Your task to perform on an android device: make emails show in primary in the gmail app Image 0: 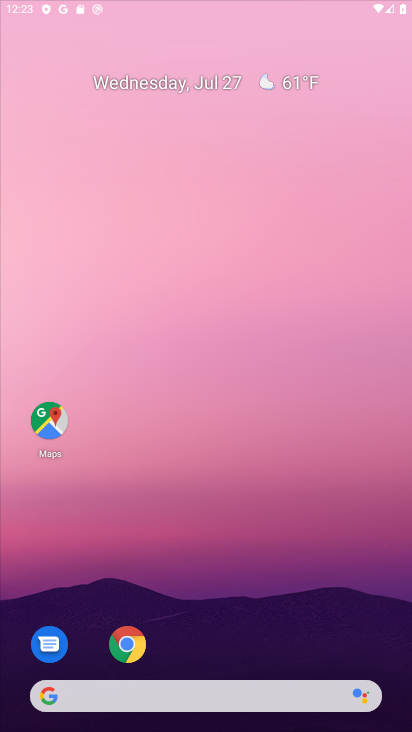
Step 0: click (353, 42)
Your task to perform on an android device: make emails show in primary in the gmail app Image 1: 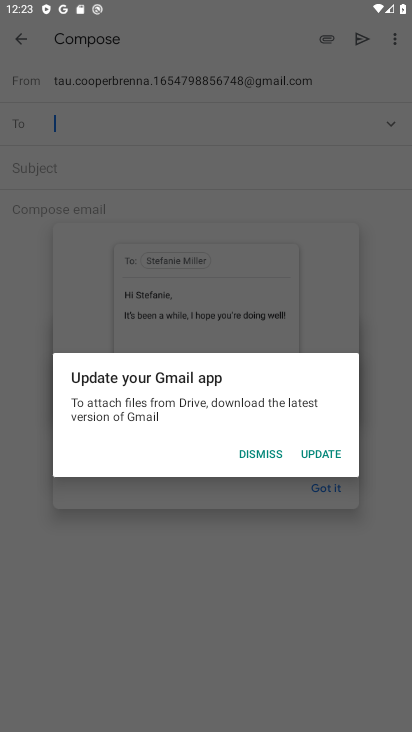
Step 1: press home button
Your task to perform on an android device: make emails show in primary in the gmail app Image 2: 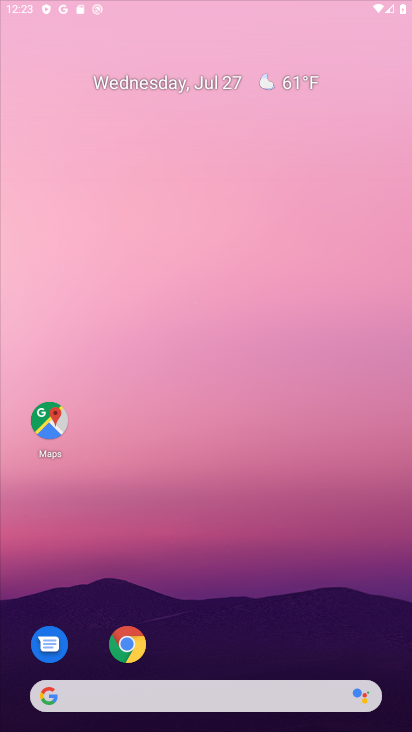
Step 2: drag from (252, 552) to (406, 84)
Your task to perform on an android device: make emails show in primary in the gmail app Image 3: 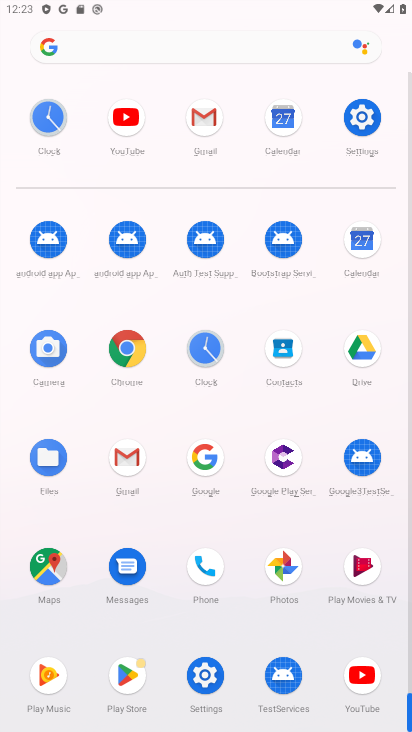
Step 3: click (126, 458)
Your task to perform on an android device: make emails show in primary in the gmail app Image 4: 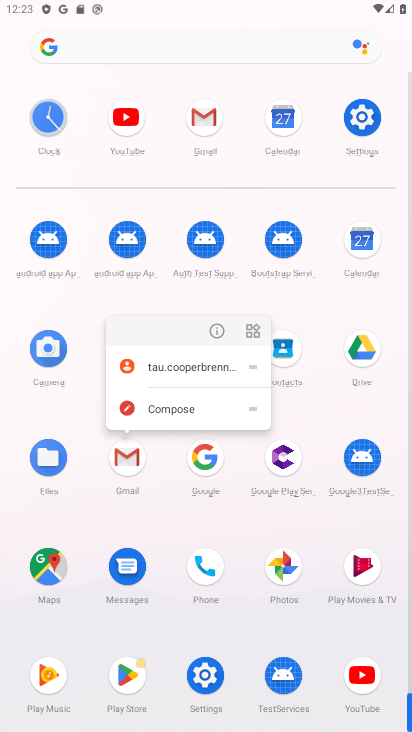
Step 4: click (217, 329)
Your task to perform on an android device: make emails show in primary in the gmail app Image 5: 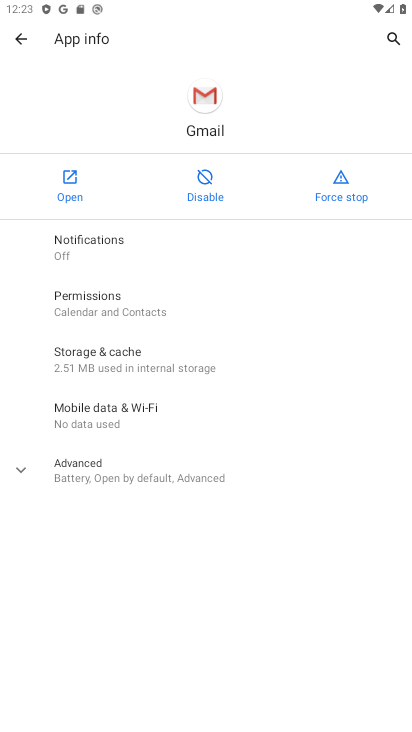
Step 5: click (67, 177)
Your task to perform on an android device: make emails show in primary in the gmail app Image 6: 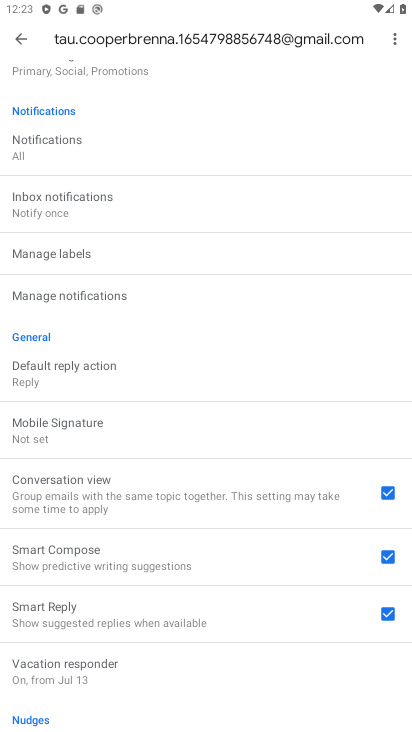
Step 6: click (19, 32)
Your task to perform on an android device: make emails show in primary in the gmail app Image 7: 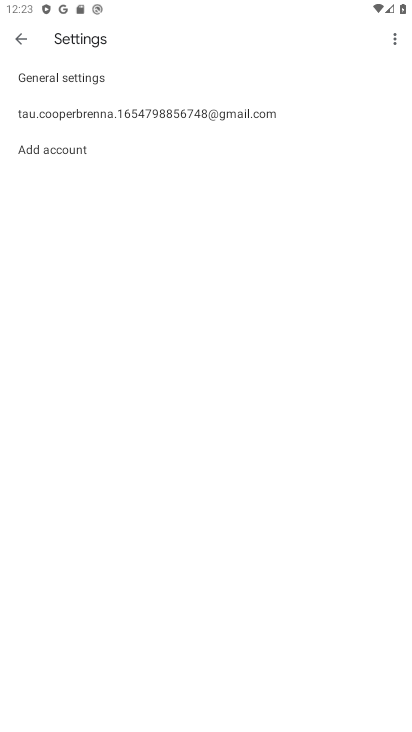
Step 7: click (30, 46)
Your task to perform on an android device: make emails show in primary in the gmail app Image 8: 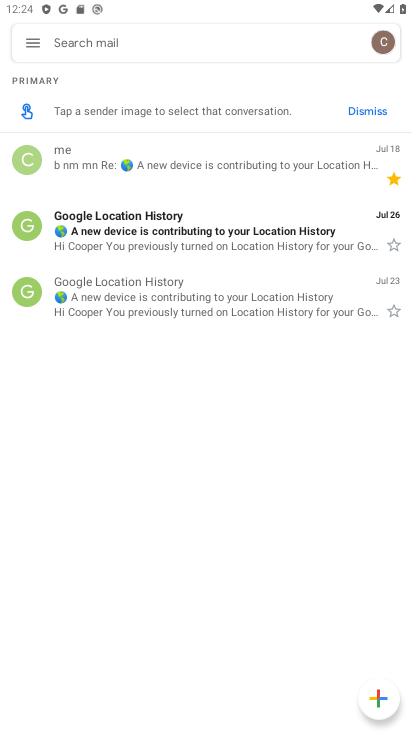
Step 8: task complete